Your task to perform on an android device: show emergency info Image 0: 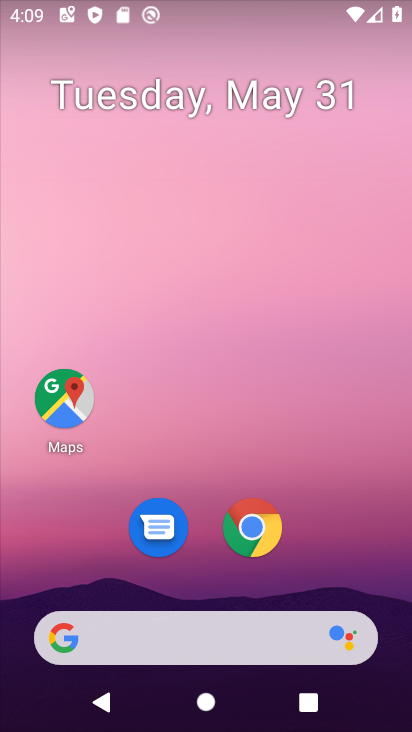
Step 0: drag from (332, 551) to (245, 11)
Your task to perform on an android device: show emergency info Image 1: 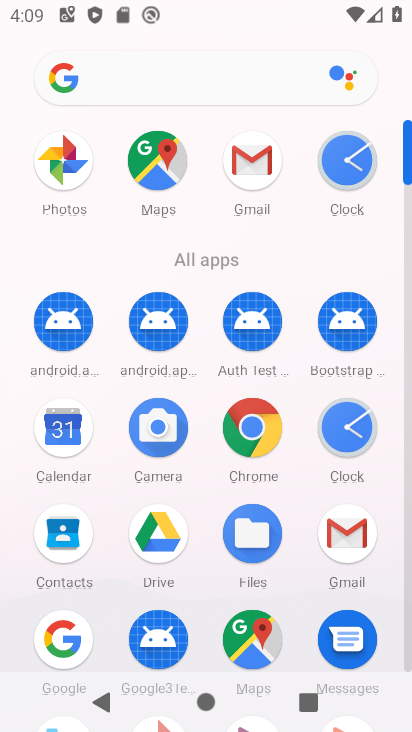
Step 1: drag from (13, 548) to (4, 192)
Your task to perform on an android device: show emergency info Image 2: 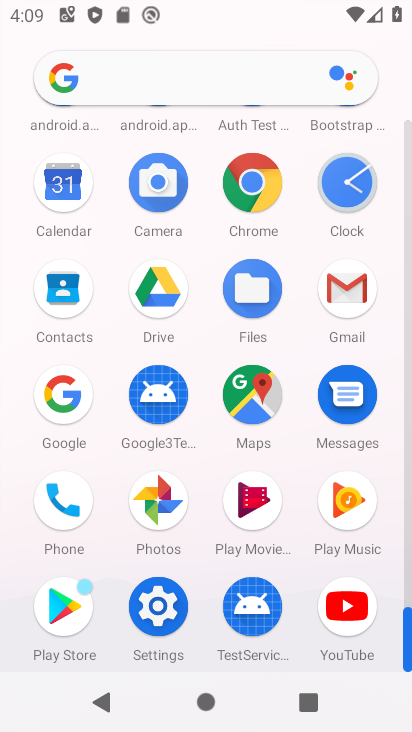
Step 2: click (158, 604)
Your task to perform on an android device: show emergency info Image 3: 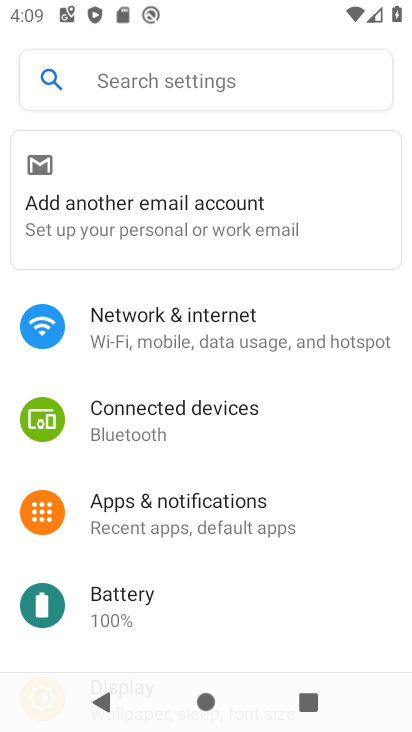
Step 3: drag from (270, 595) to (288, 94)
Your task to perform on an android device: show emergency info Image 4: 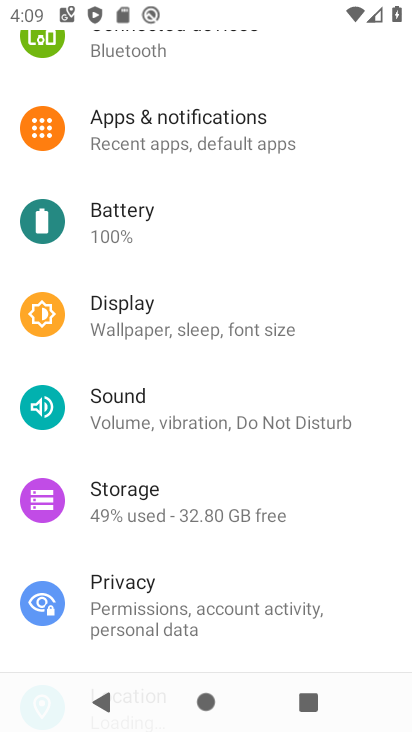
Step 4: drag from (251, 592) to (273, 152)
Your task to perform on an android device: show emergency info Image 5: 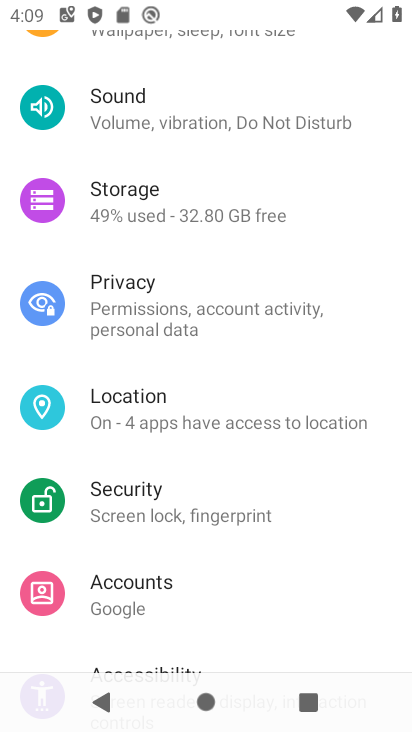
Step 5: drag from (179, 634) to (246, 168)
Your task to perform on an android device: show emergency info Image 6: 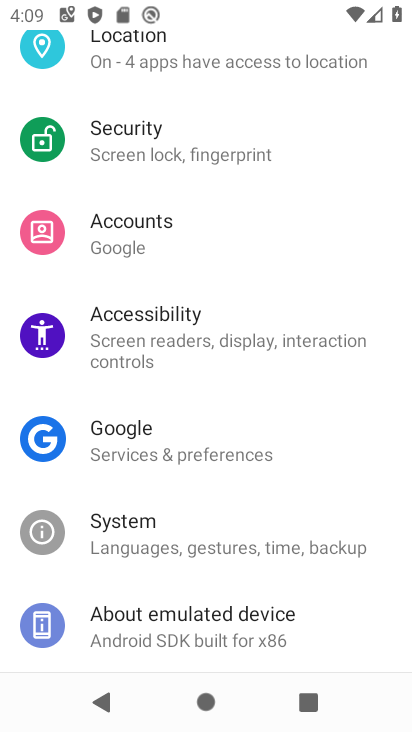
Step 6: click (215, 646)
Your task to perform on an android device: show emergency info Image 7: 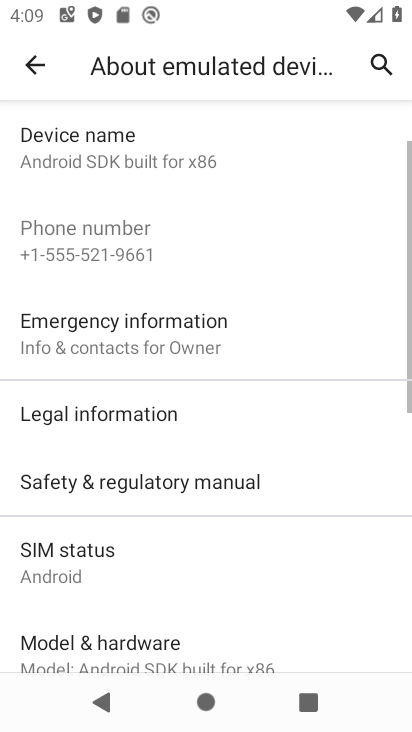
Step 7: task complete